Your task to perform on an android device: Open notification settings Image 0: 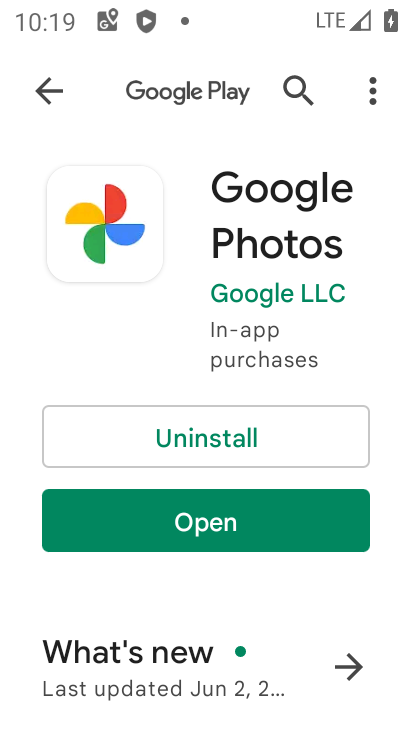
Step 0: press home button
Your task to perform on an android device: Open notification settings Image 1: 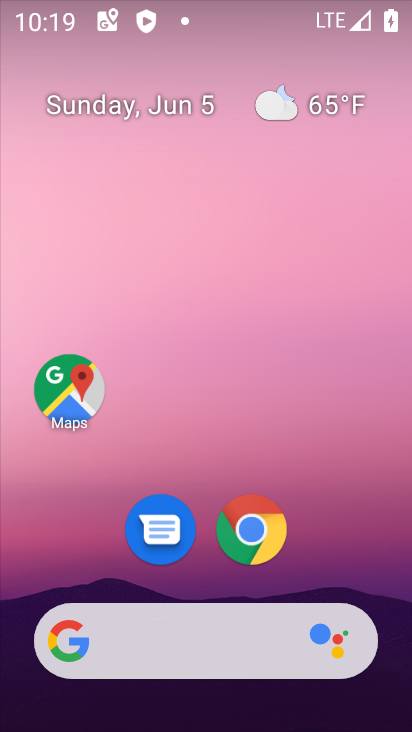
Step 1: drag from (267, 696) to (343, 24)
Your task to perform on an android device: Open notification settings Image 2: 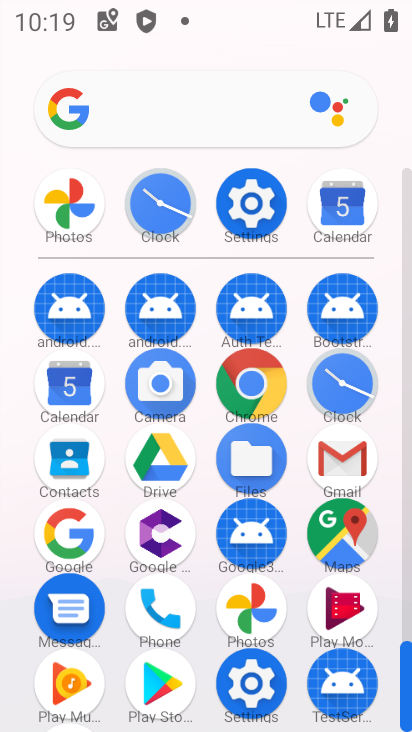
Step 2: click (268, 195)
Your task to perform on an android device: Open notification settings Image 3: 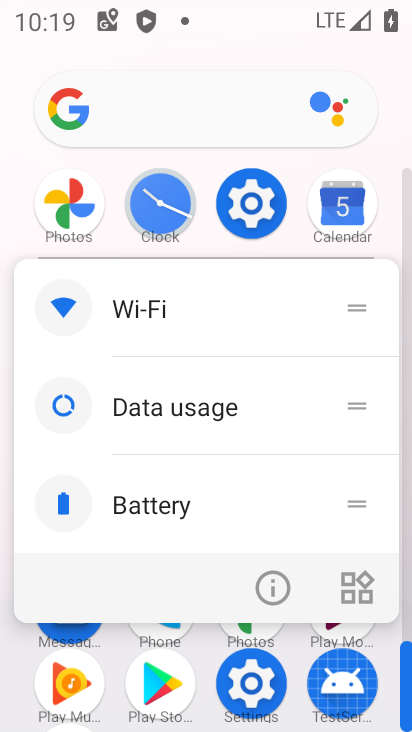
Step 3: click (249, 219)
Your task to perform on an android device: Open notification settings Image 4: 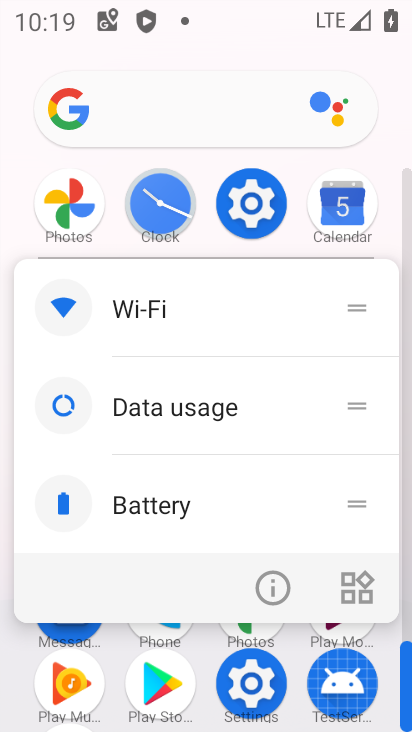
Step 4: click (249, 219)
Your task to perform on an android device: Open notification settings Image 5: 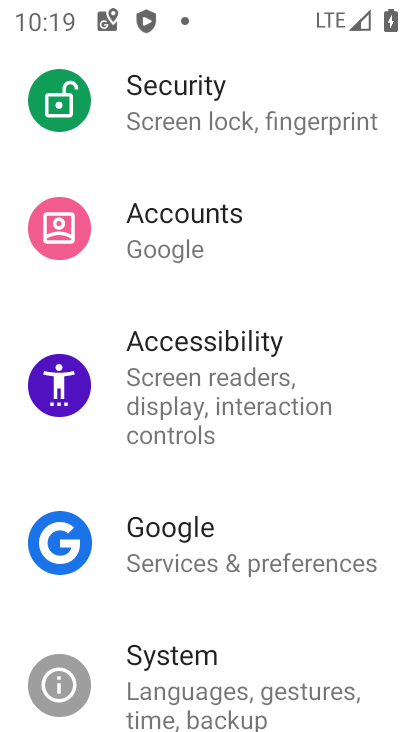
Step 5: drag from (367, 146) to (278, 678)
Your task to perform on an android device: Open notification settings Image 6: 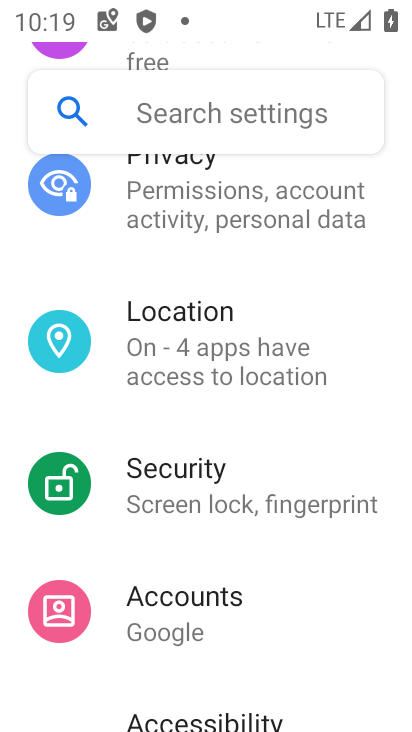
Step 6: drag from (288, 247) to (300, 725)
Your task to perform on an android device: Open notification settings Image 7: 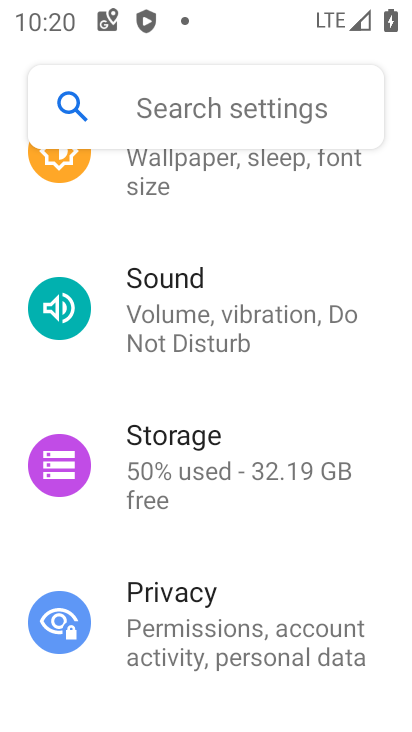
Step 7: drag from (332, 264) to (94, 729)
Your task to perform on an android device: Open notification settings Image 8: 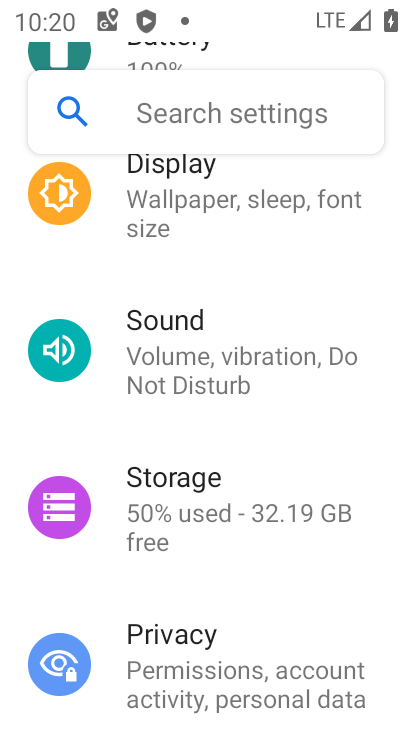
Step 8: drag from (304, 258) to (147, 718)
Your task to perform on an android device: Open notification settings Image 9: 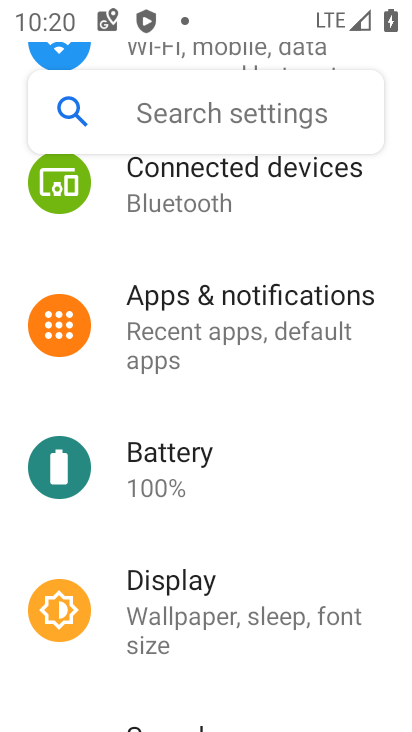
Step 9: drag from (302, 229) to (242, 691)
Your task to perform on an android device: Open notification settings Image 10: 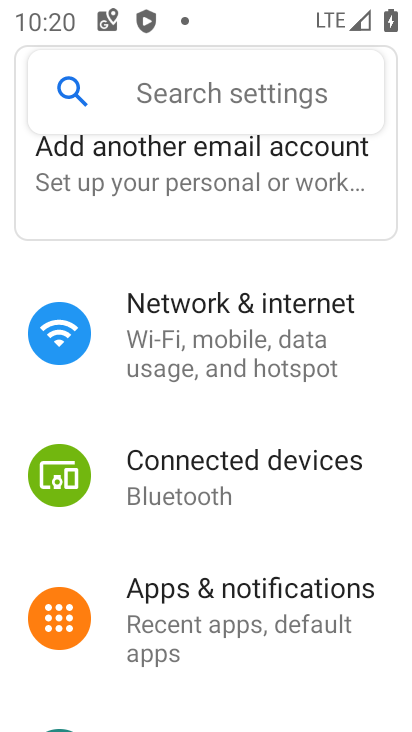
Step 10: click (244, 617)
Your task to perform on an android device: Open notification settings Image 11: 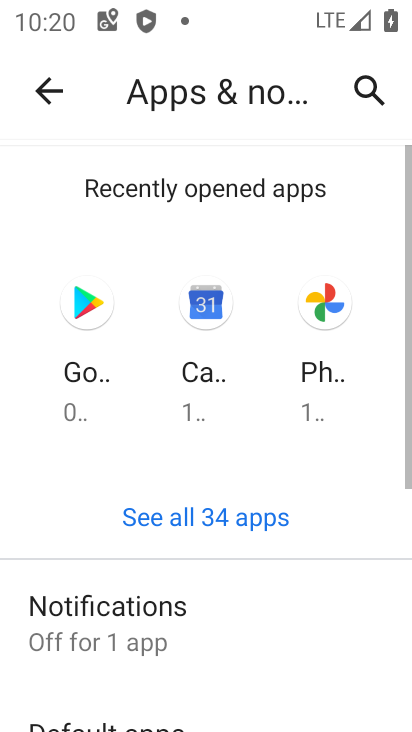
Step 11: task complete